Your task to perform on an android device: Do I have any events this weekend? Image 0: 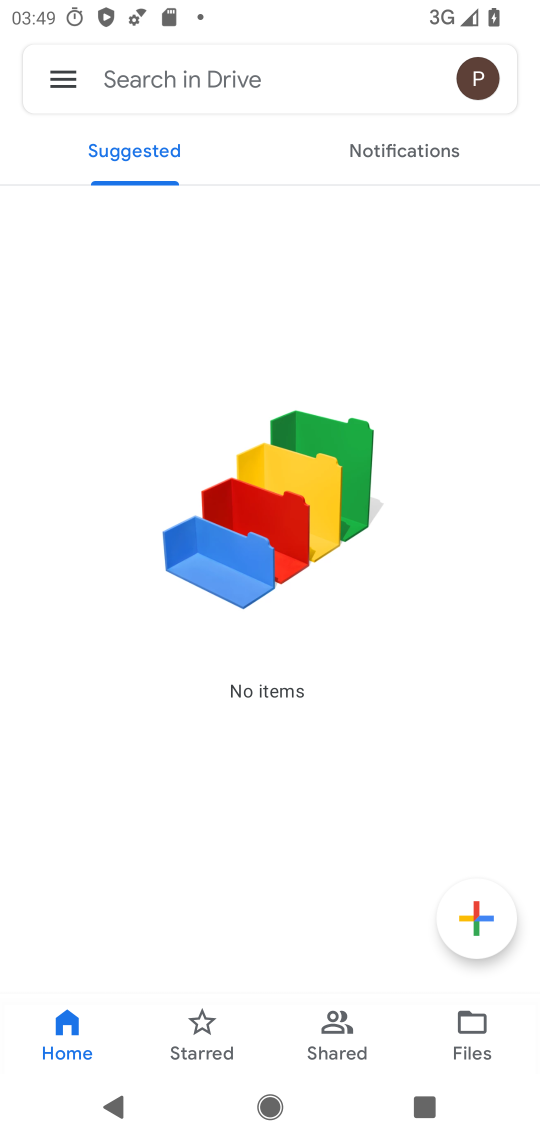
Step 0: press home button
Your task to perform on an android device: Do I have any events this weekend? Image 1: 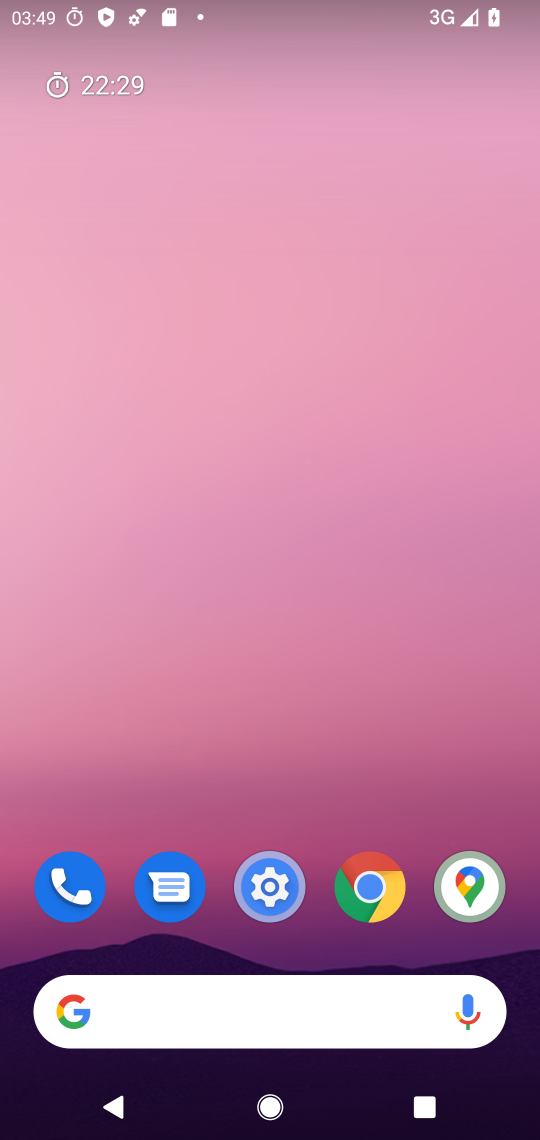
Step 1: drag from (386, 790) to (396, 348)
Your task to perform on an android device: Do I have any events this weekend? Image 2: 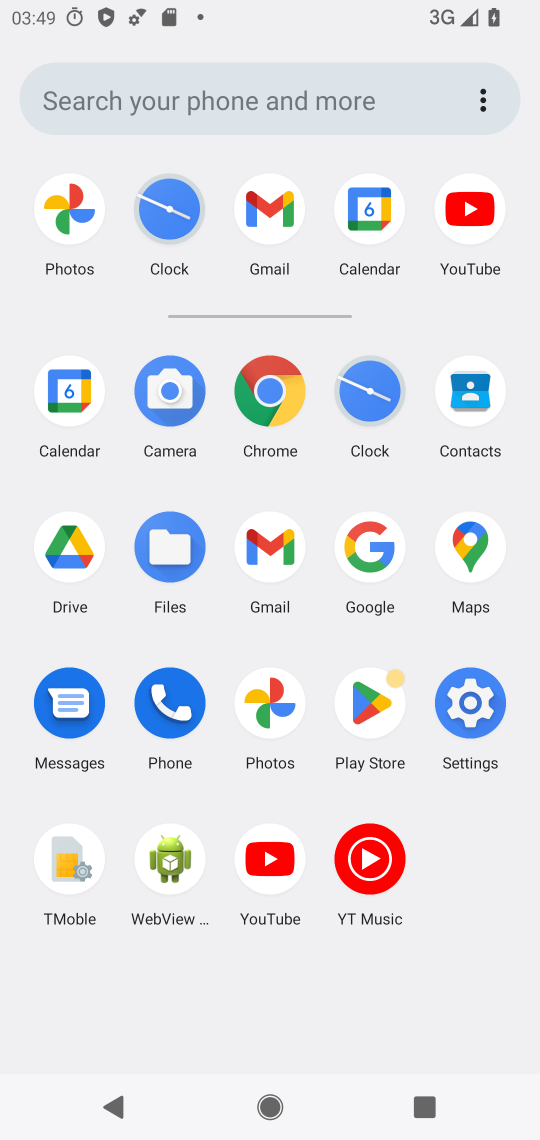
Step 2: click (60, 395)
Your task to perform on an android device: Do I have any events this weekend? Image 3: 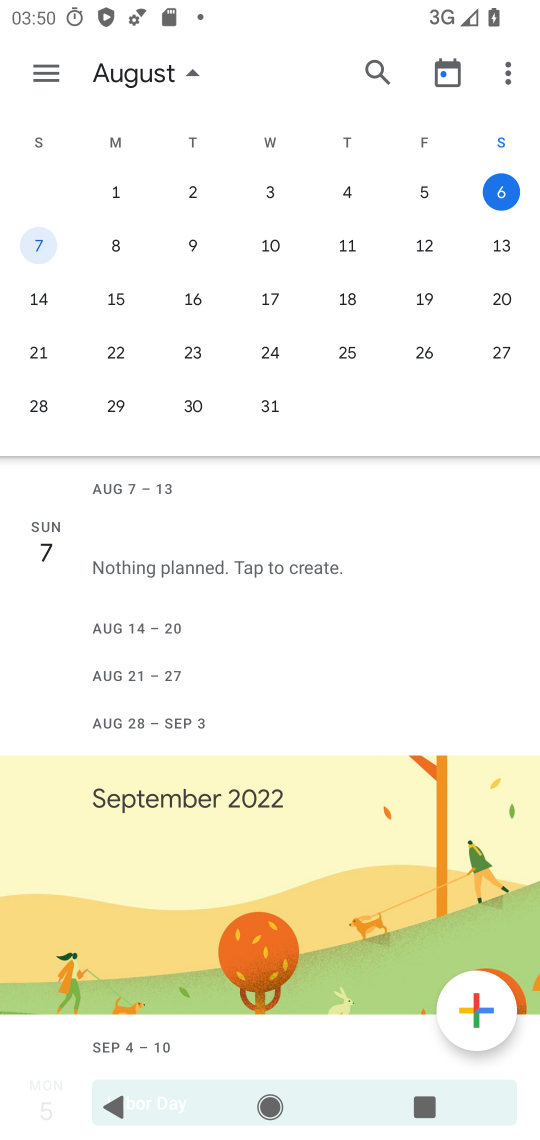
Step 3: task complete